Your task to perform on an android device: Search for Mexican restaurants on Maps Image 0: 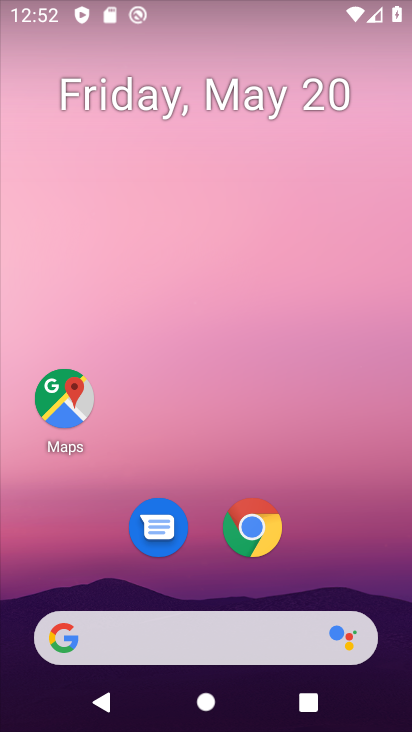
Step 0: click (66, 401)
Your task to perform on an android device: Search for Mexican restaurants on Maps Image 1: 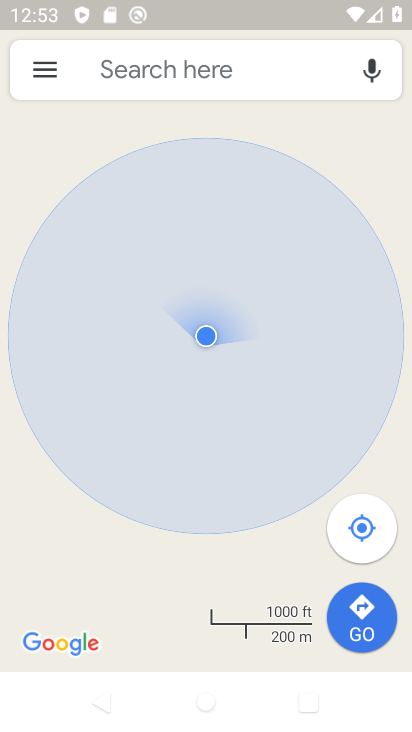
Step 1: click (198, 67)
Your task to perform on an android device: Search for Mexican restaurants on Maps Image 2: 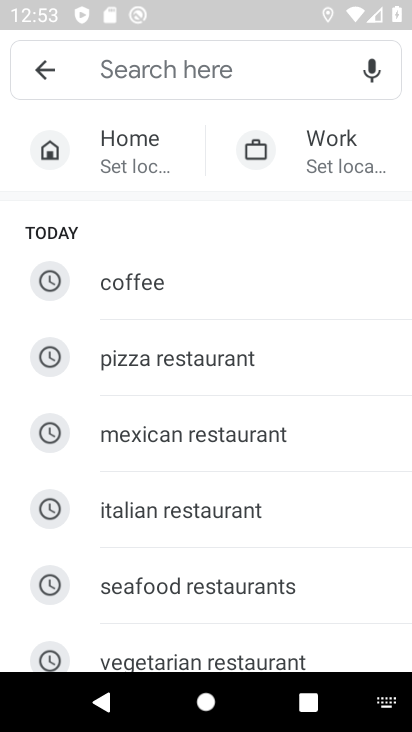
Step 2: click (235, 421)
Your task to perform on an android device: Search for Mexican restaurants on Maps Image 3: 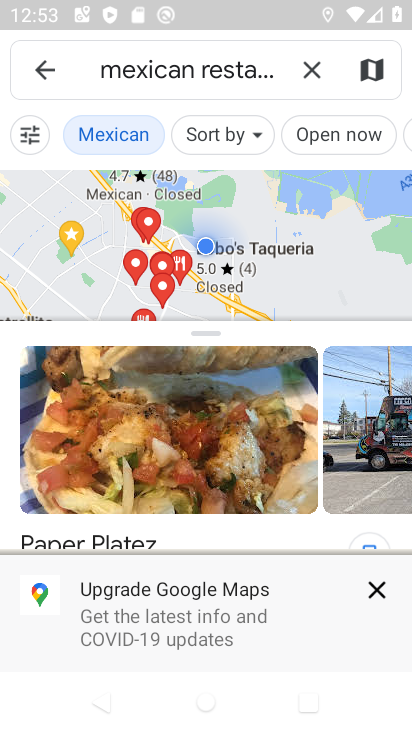
Step 3: task complete